Your task to perform on an android device: Go to Google maps Image 0: 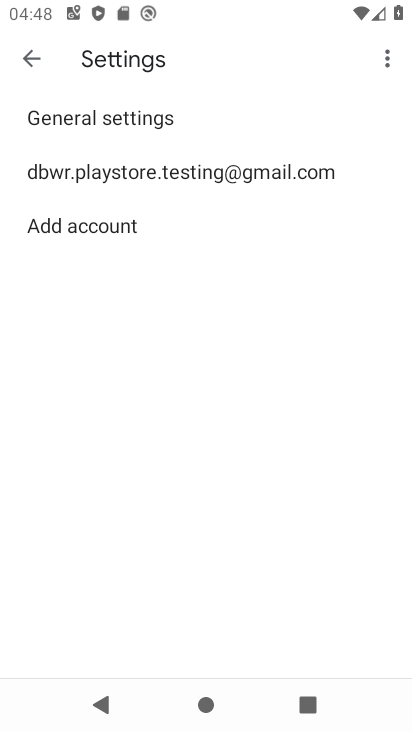
Step 0: press home button
Your task to perform on an android device: Go to Google maps Image 1: 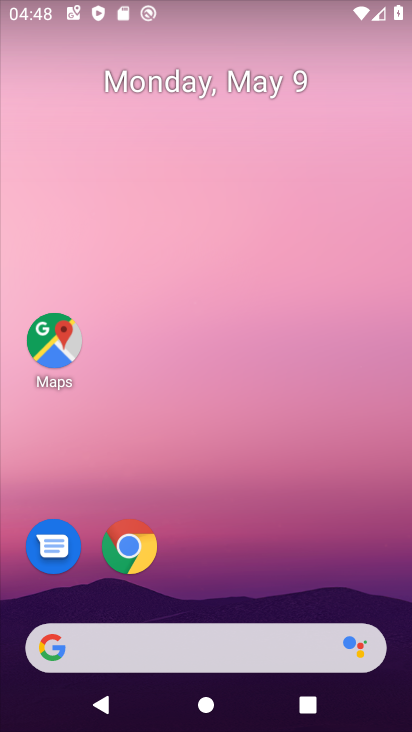
Step 1: click (64, 351)
Your task to perform on an android device: Go to Google maps Image 2: 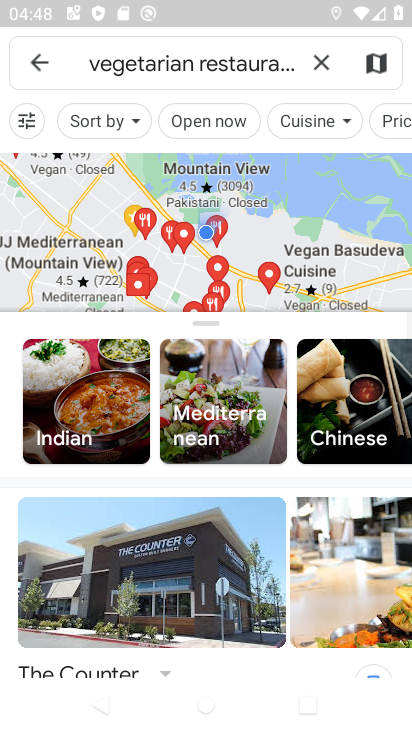
Step 2: click (50, 68)
Your task to perform on an android device: Go to Google maps Image 3: 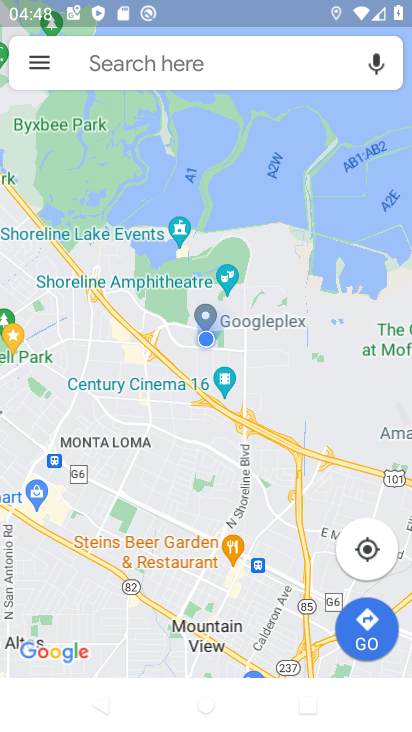
Step 3: task complete